Your task to perform on an android device: Open Chrome and go to settings Image 0: 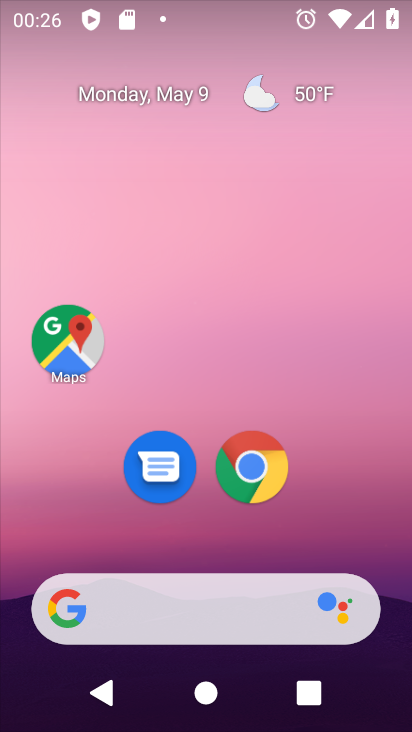
Step 0: click (251, 470)
Your task to perform on an android device: Open Chrome and go to settings Image 1: 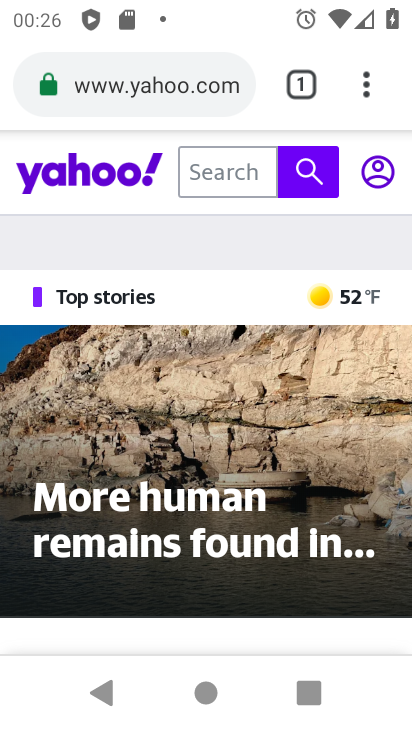
Step 1: click (356, 94)
Your task to perform on an android device: Open Chrome and go to settings Image 2: 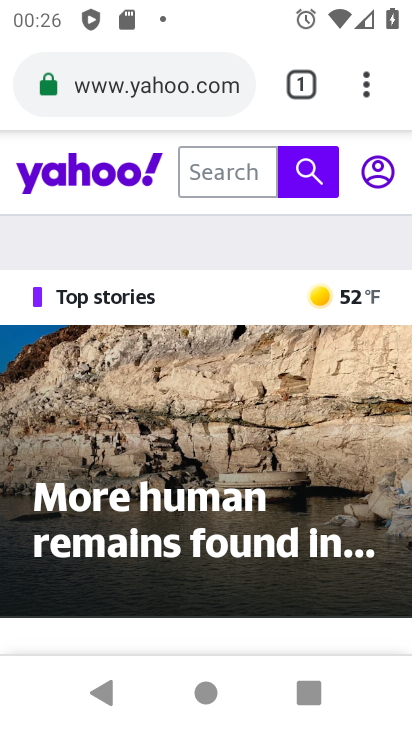
Step 2: click (366, 83)
Your task to perform on an android device: Open Chrome and go to settings Image 3: 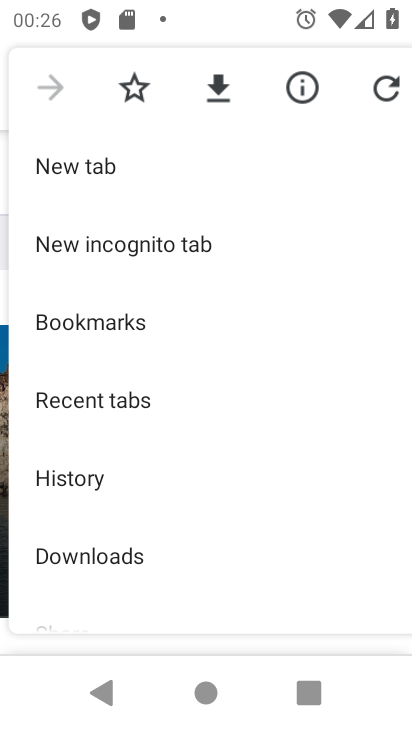
Step 3: drag from (197, 543) to (242, 20)
Your task to perform on an android device: Open Chrome and go to settings Image 4: 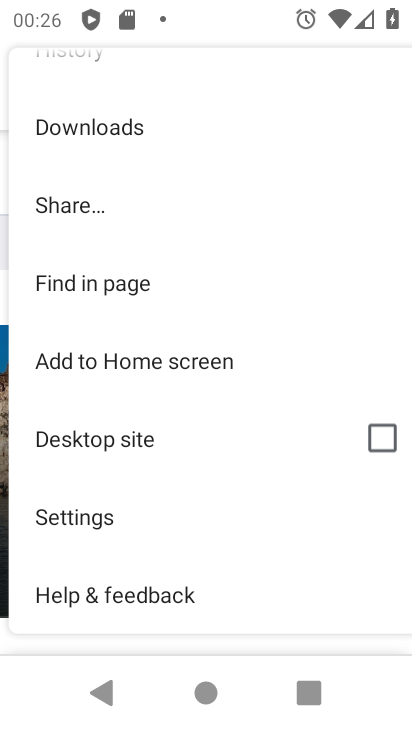
Step 4: click (119, 512)
Your task to perform on an android device: Open Chrome and go to settings Image 5: 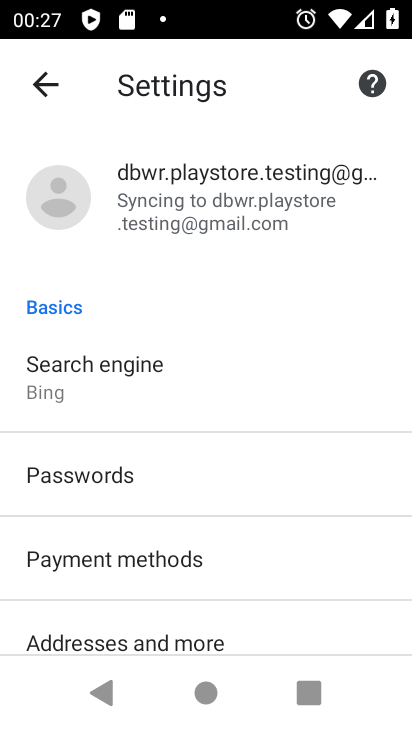
Step 5: task complete